Your task to perform on an android device: Open Google Chrome and click the shortcut for Amazon.com Image 0: 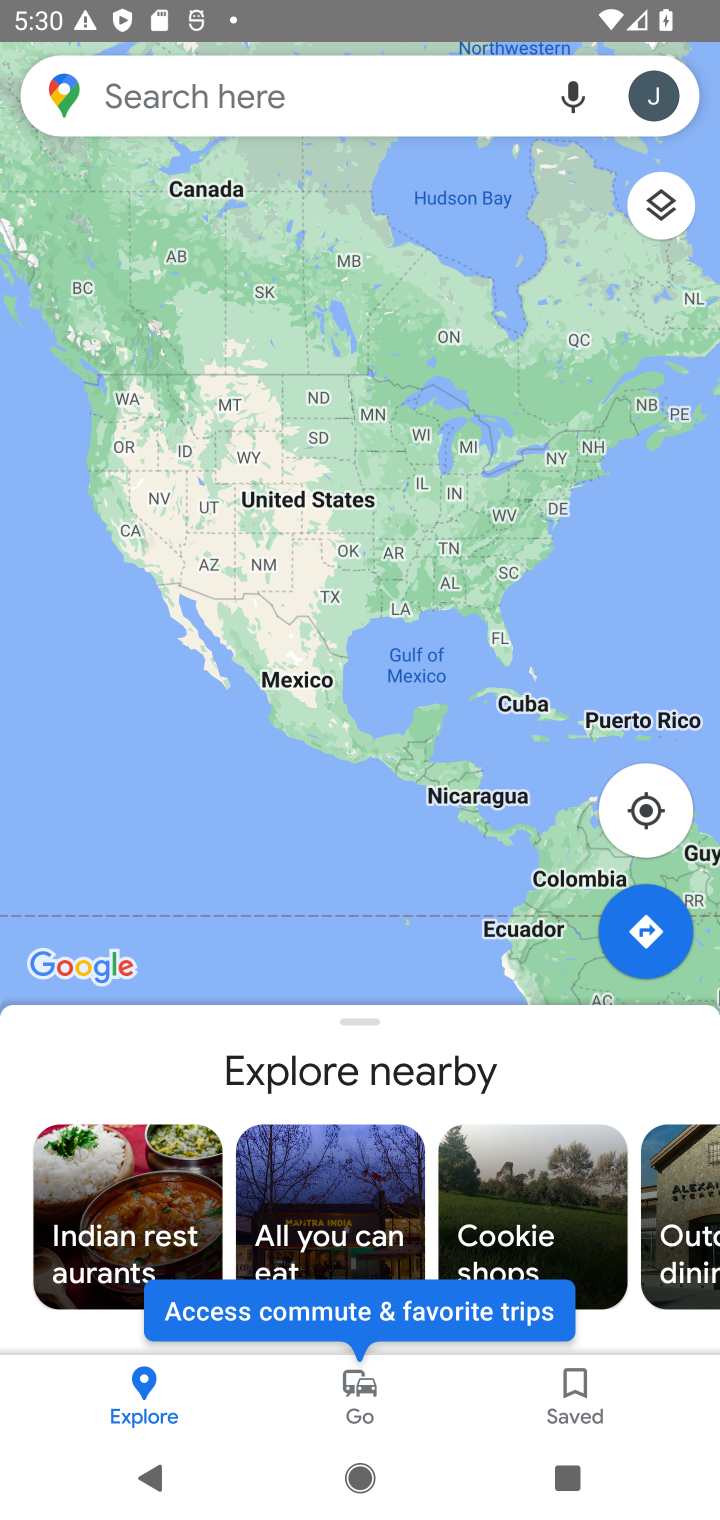
Step 0: press home button
Your task to perform on an android device: Open Google Chrome and click the shortcut for Amazon.com Image 1: 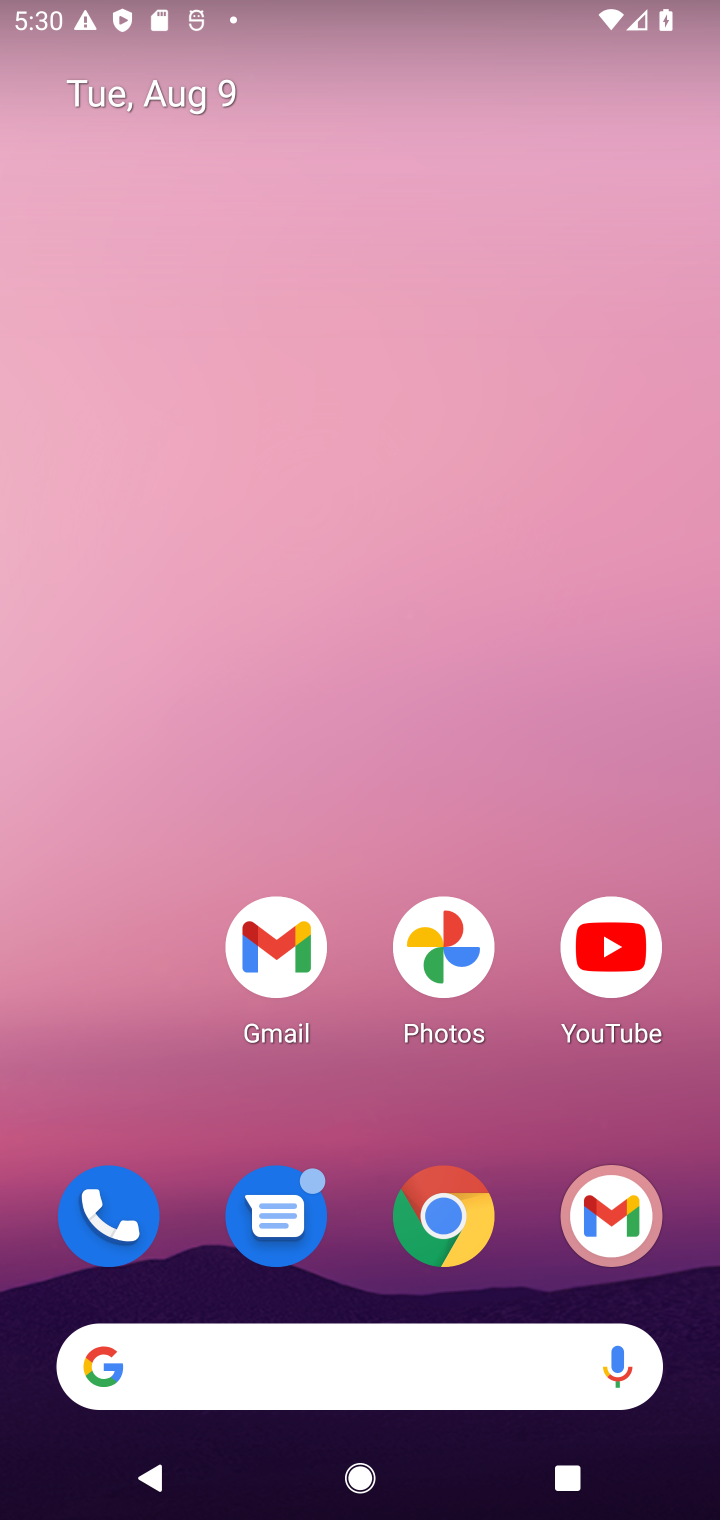
Step 1: click (459, 1245)
Your task to perform on an android device: Open Google Chrome and click the shortcut for Amazon.com Image 2: 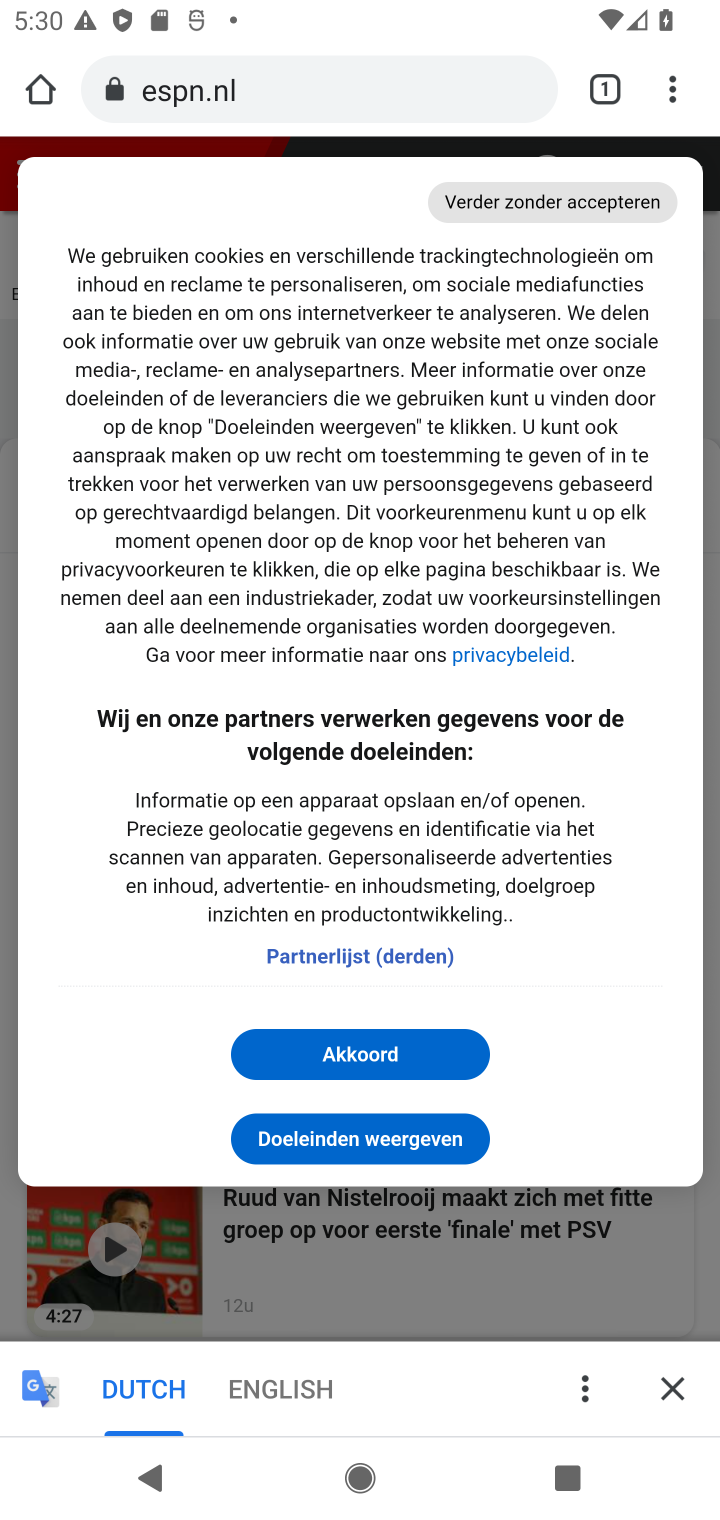
Step 2: click (617, 83)
Your task to perform on an android device: Open Google Chrome and click the shortcut for Amazon.com Image 3: 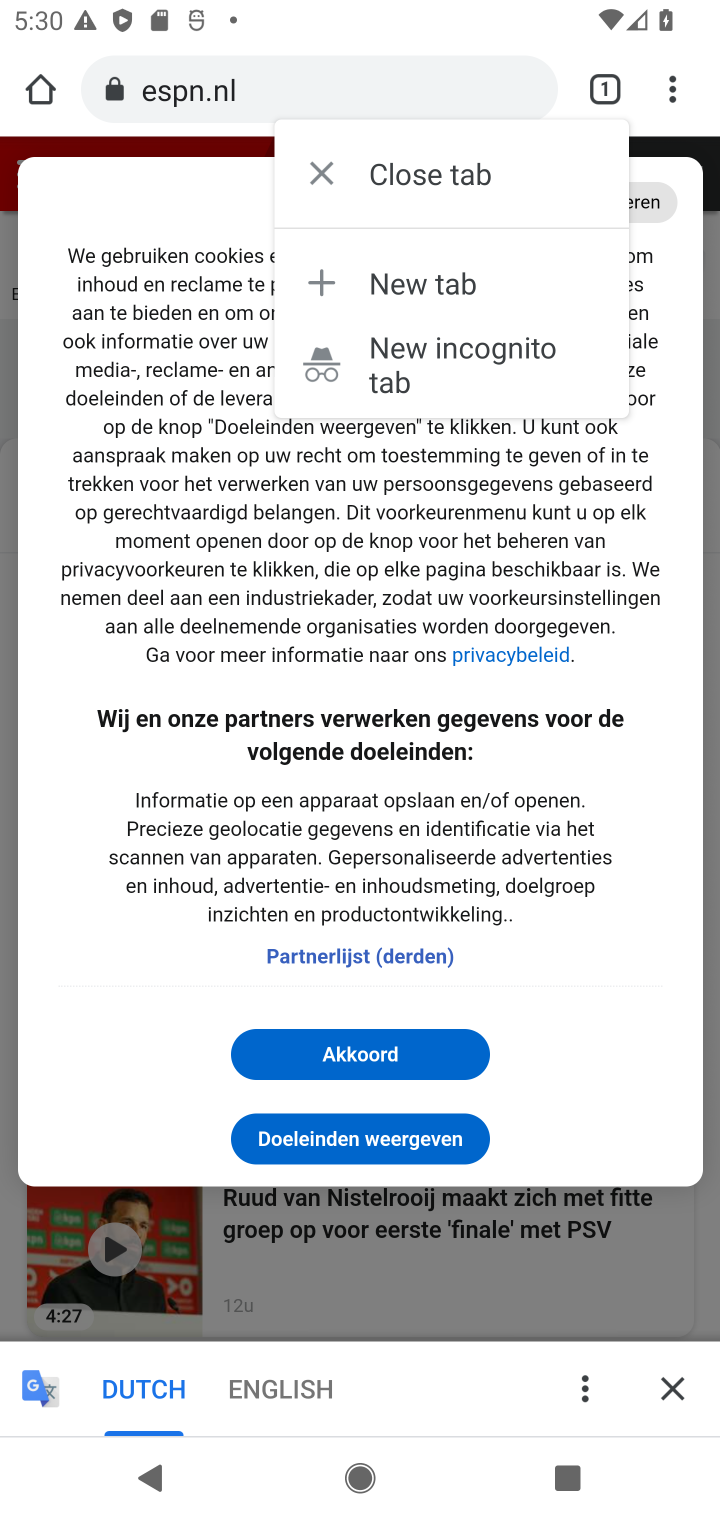
Step 3: click (371, 173)
Your task to perform on an android device: Open Google Chrome and click the shortcut for Amazon.com Image 4: 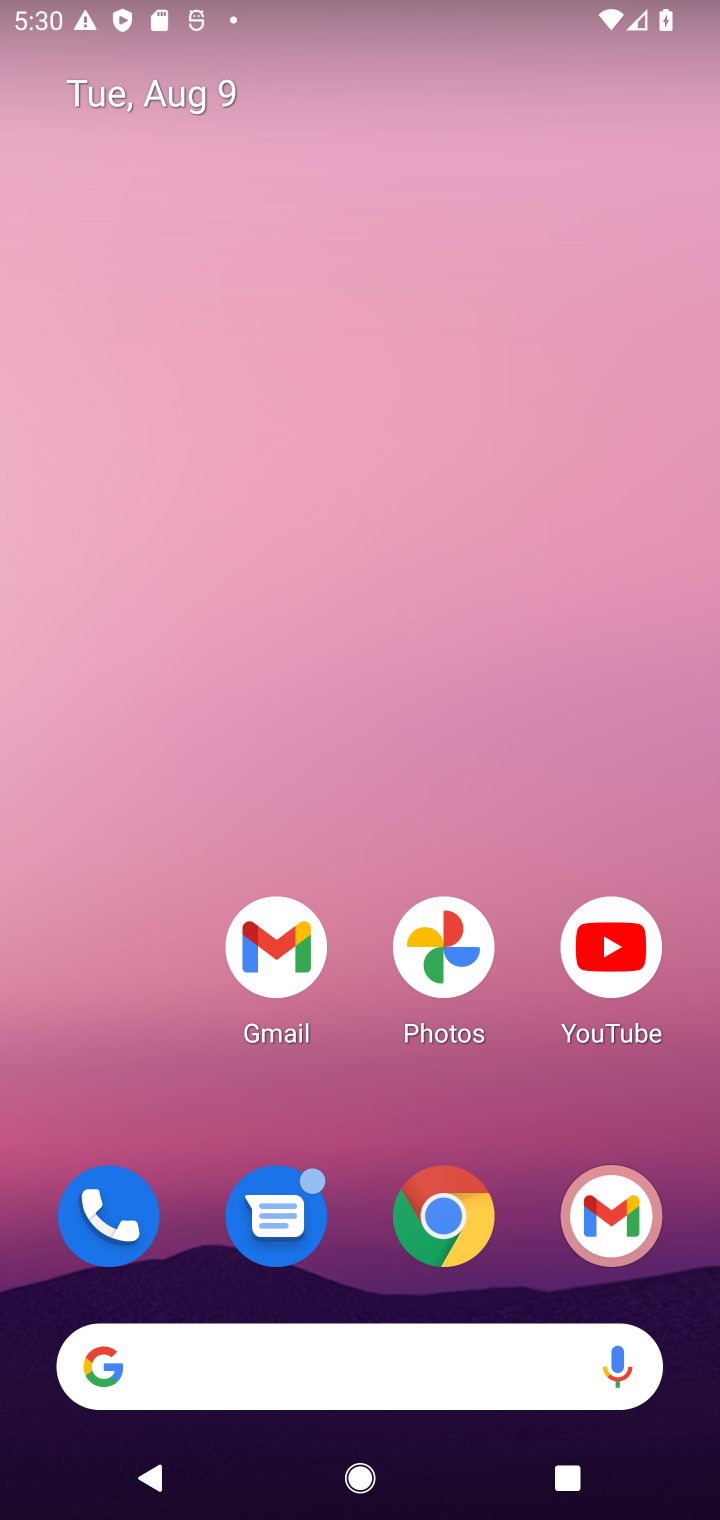
Step 4: click (471, 1214)
Your task to perform on an android device: Open Google Chrome and click the shortcut for Amazon.com Image 5: 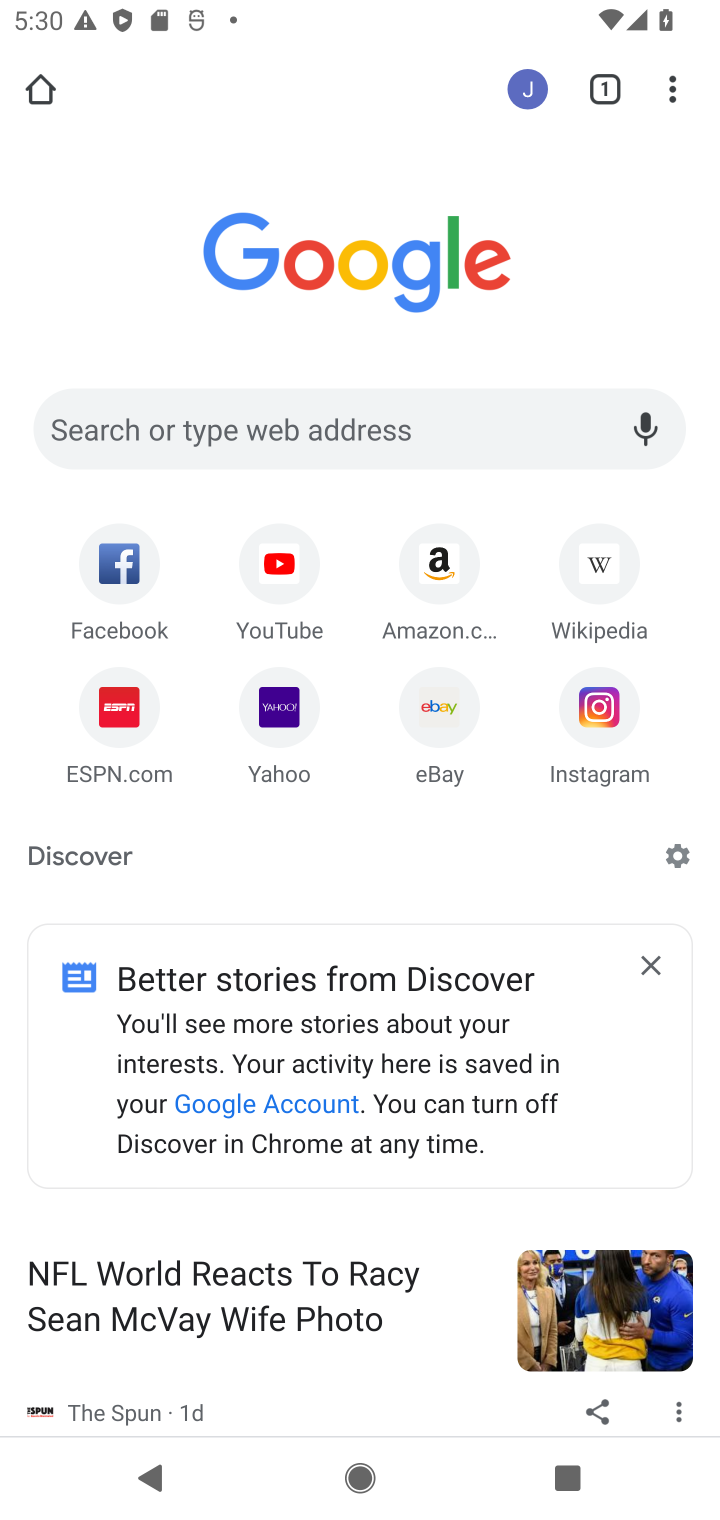
Step 5: click (440, 567)
Your task to perform on an android device: Open Google Chrome and click the shortcut for Amazon.com Image 6: 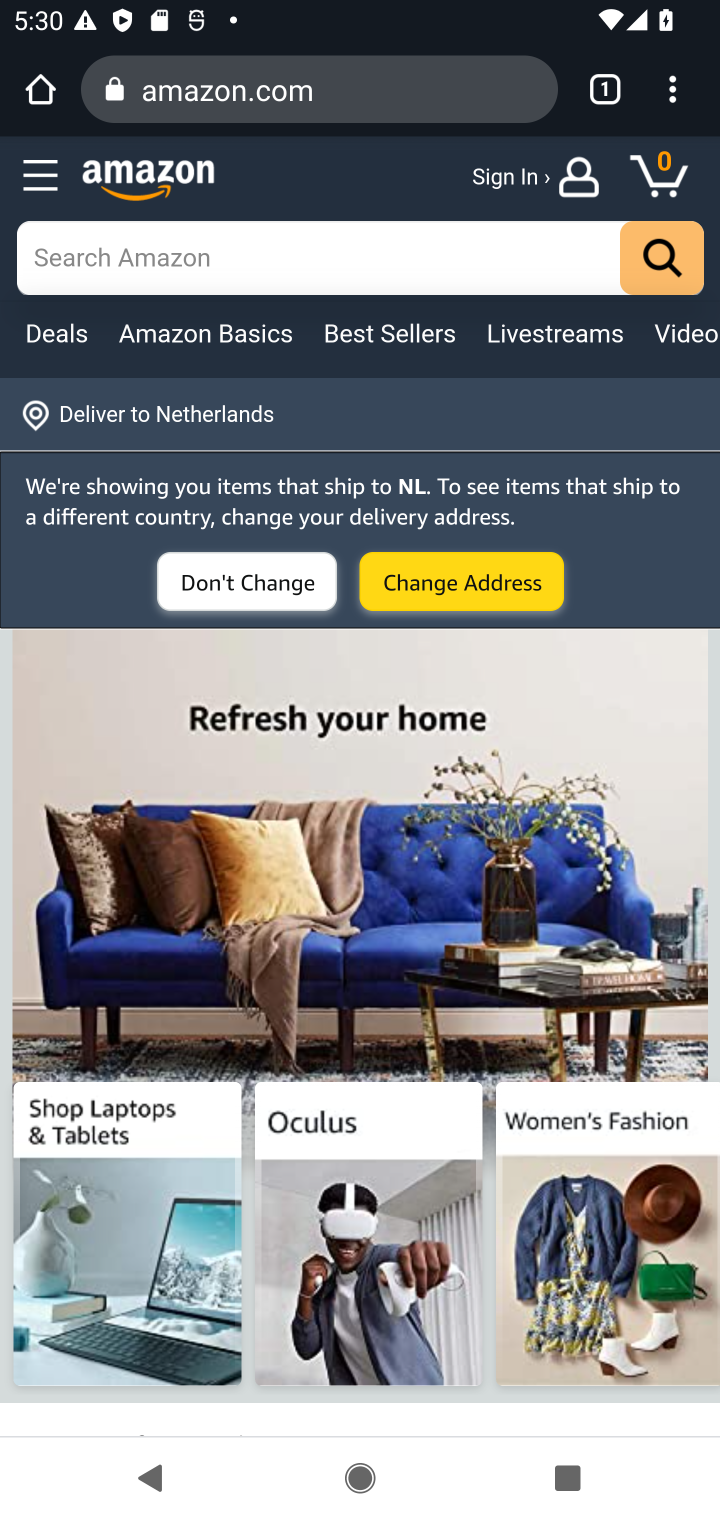
Step 6: task complete